Your task to perform on an android device: Go to location settings Image 0: 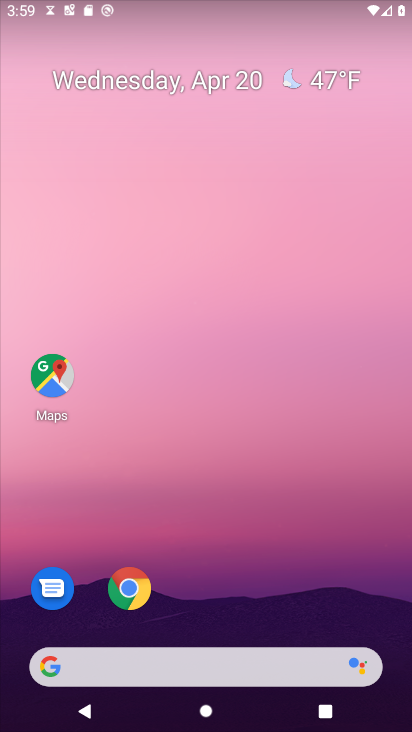
Step 0: drag from (239, 595) to (243, 147)
Your task to perform on an android device: Go to location settings Image 1: 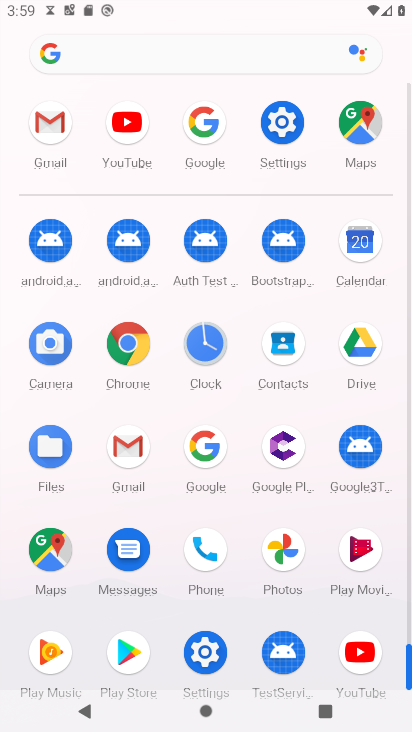
Step 1: click (202, 658)
Your task to perform on an android device: Go to location settings Image 2: 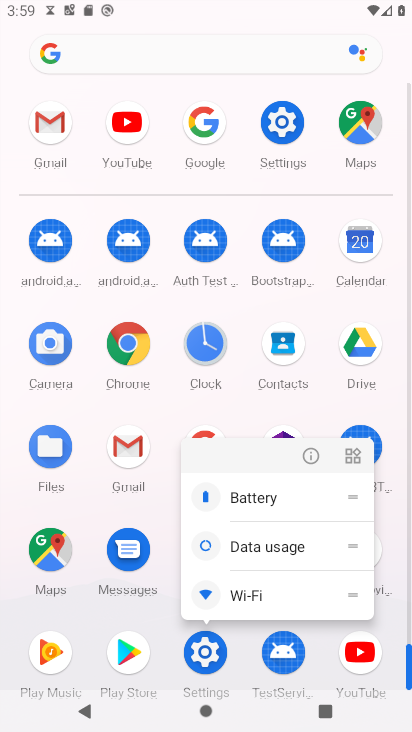
Step 2: click (202, 658)
Your task to perform on an android device: Go to location settings Image 3: 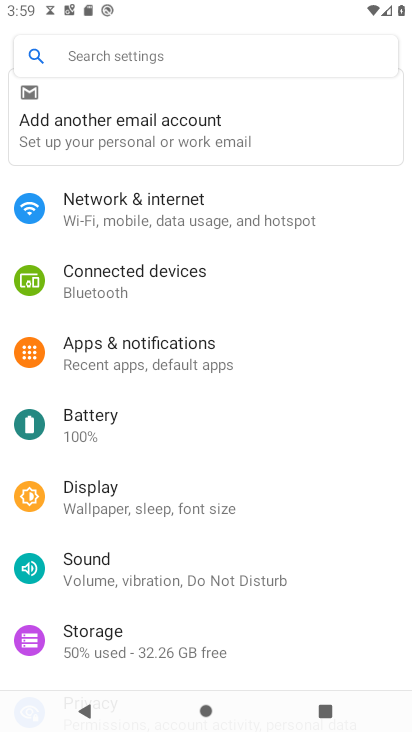
Step 3: drag from (138, 581) to (142, 504)
Your task to perform on an android device: Go to location settings Image 4: 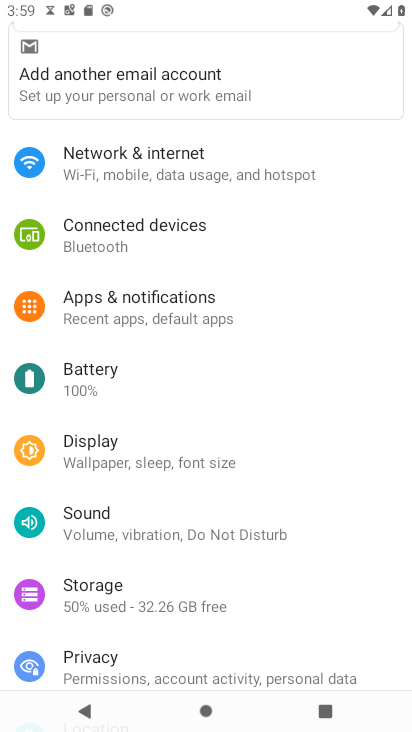
Step 4: drag from (160, 570) to (179, 479)
Your task to perform on an android device: Go to location settings Image 5: 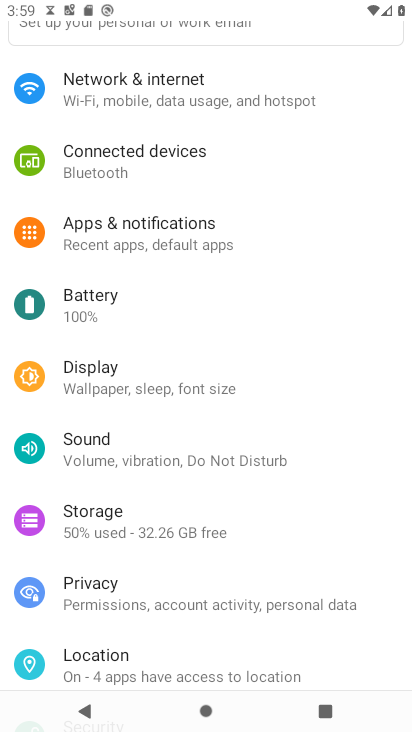
Step 5: click (160, 668)
Your task to perform on an android device: Go to location settings Image 6: 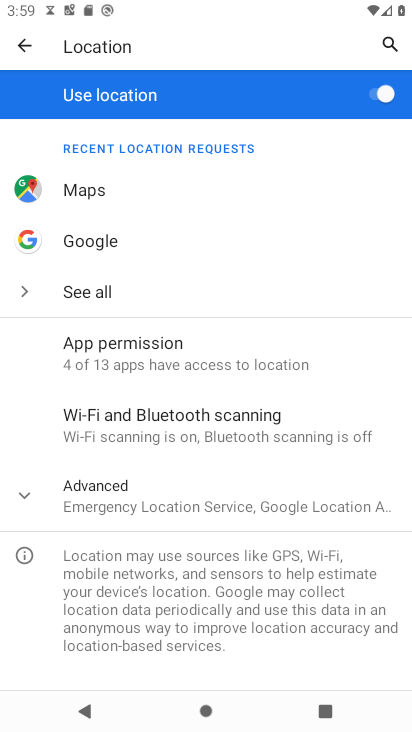
Step 6: task complete